Your task to perform on an android device: turn vacation reply on in the gmail app Image 0: 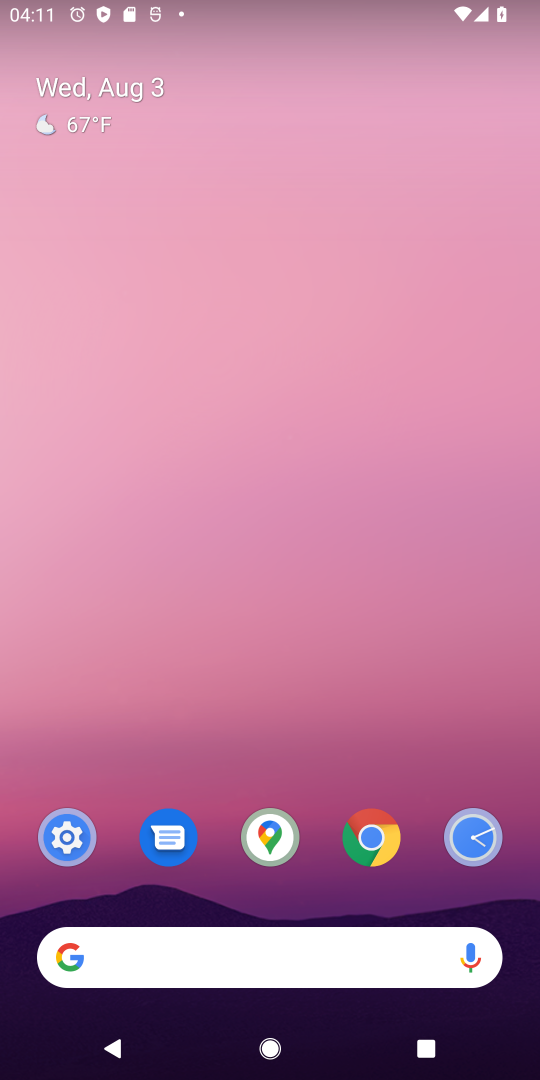
Step 0: drag from (422, 902) to (373, 111)
Your task to perform on an android device: turn vacation reply on in the gmail app Image 1: 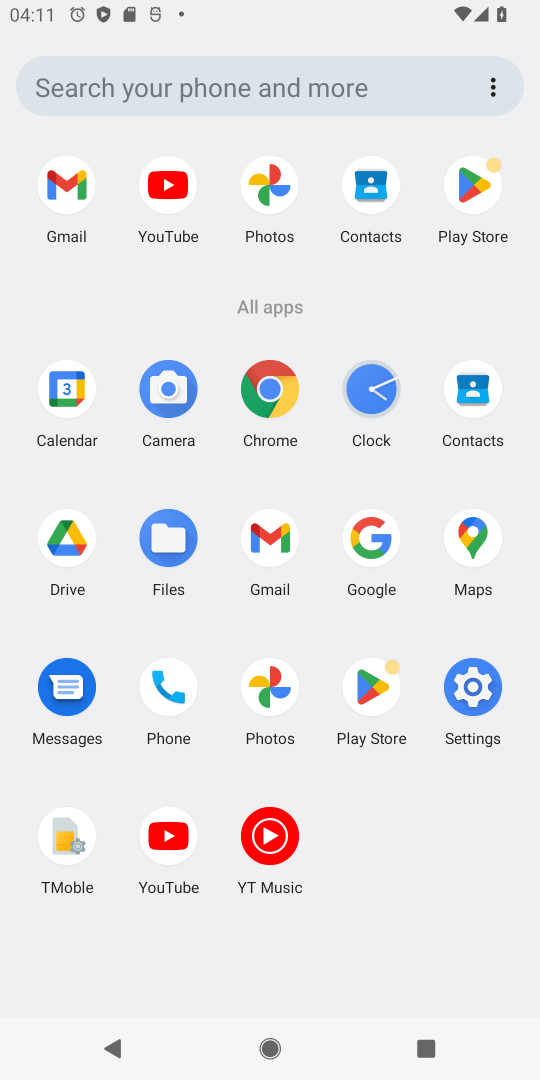
Step 1: click (269, 545)
Your task to perform on an android device: turn vacation reply on in the gmail app Image 2: 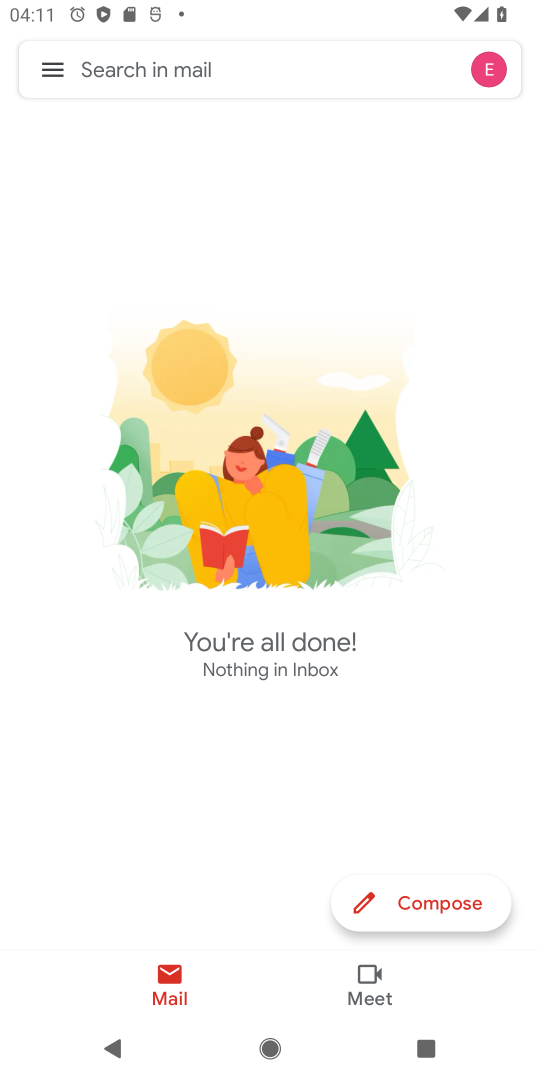
Step 2: click (50, 71)
Your task to perform on an android device: turn vacation reply on in the gmail app Image 3: 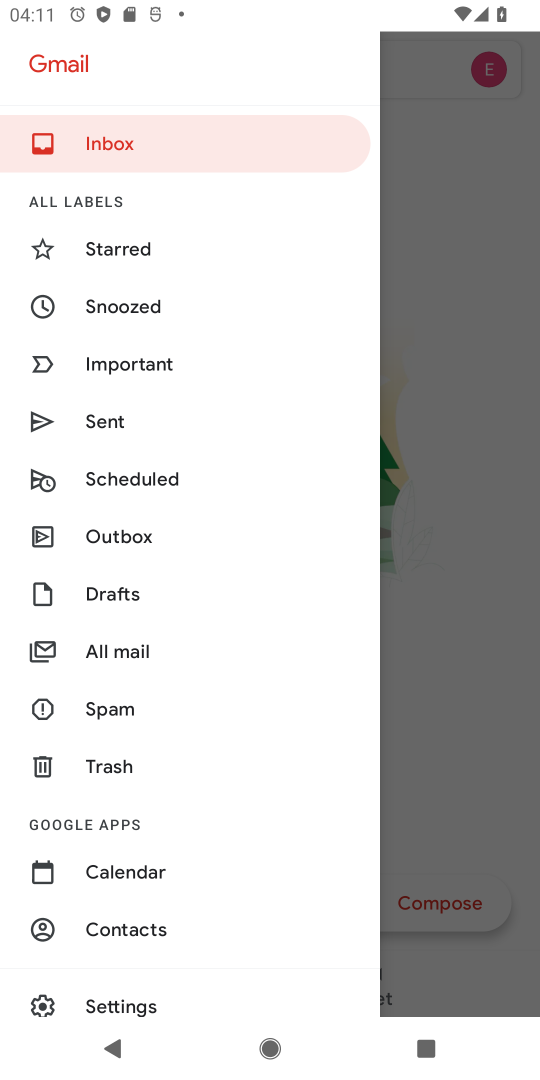
Step 3: drag from (257, 757) to (265, 375)
Your task to perform on an android device: turn vacation reply on in the gmail app Image 4: 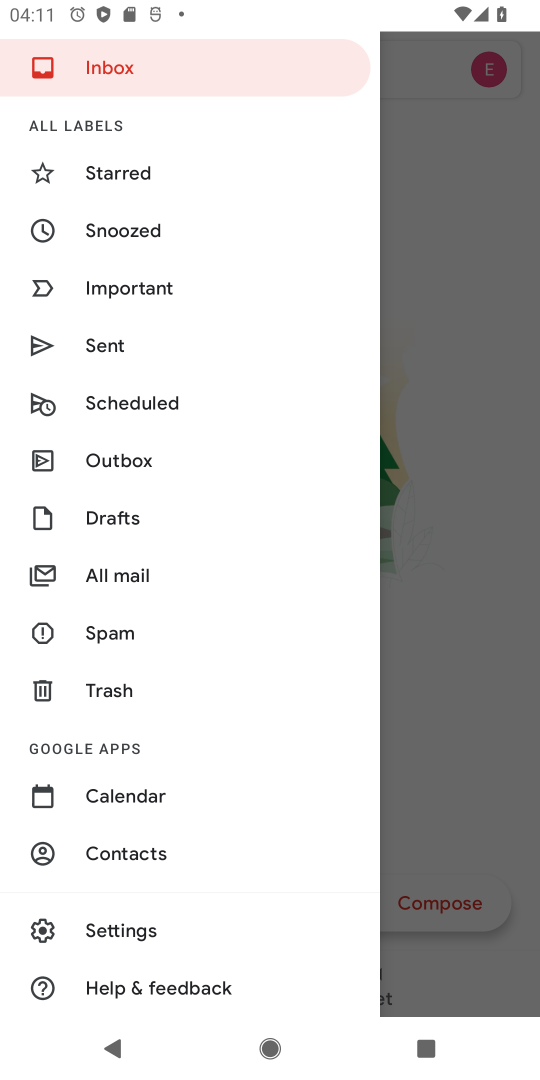
Step 4: click (121, 934)
Your task to perform on an android device: turn vacation reply on in the gmail app Image 5: 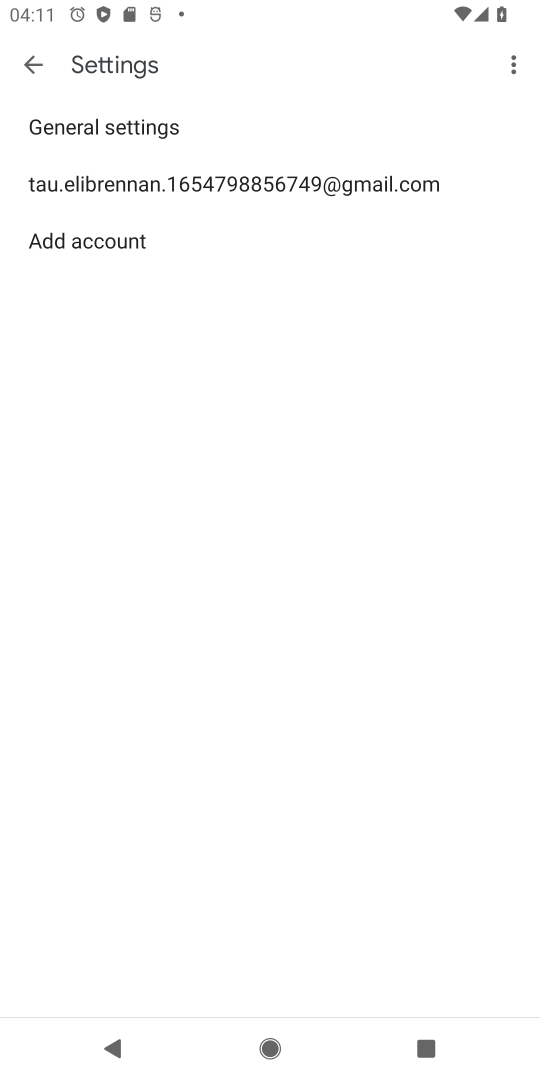
Step 5: click (234, 188)
Your task to perform on an android device: turn vacation reply on in the gmail app Image 6: 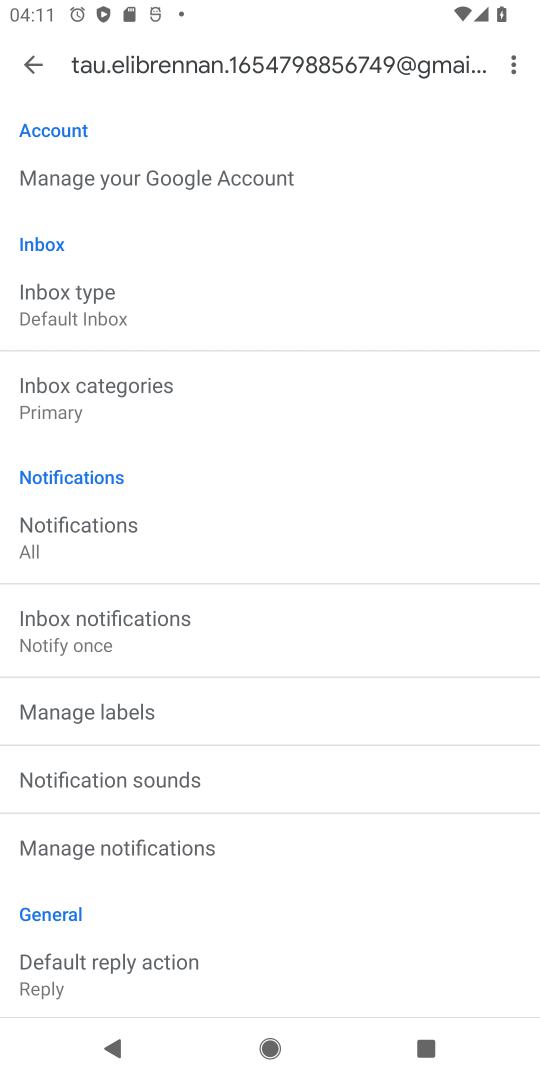
Step 6: drag from (262, 931) to (260, 312)
Your task to perform on an android device: turn vacation reply on in the gmail app Image 7: 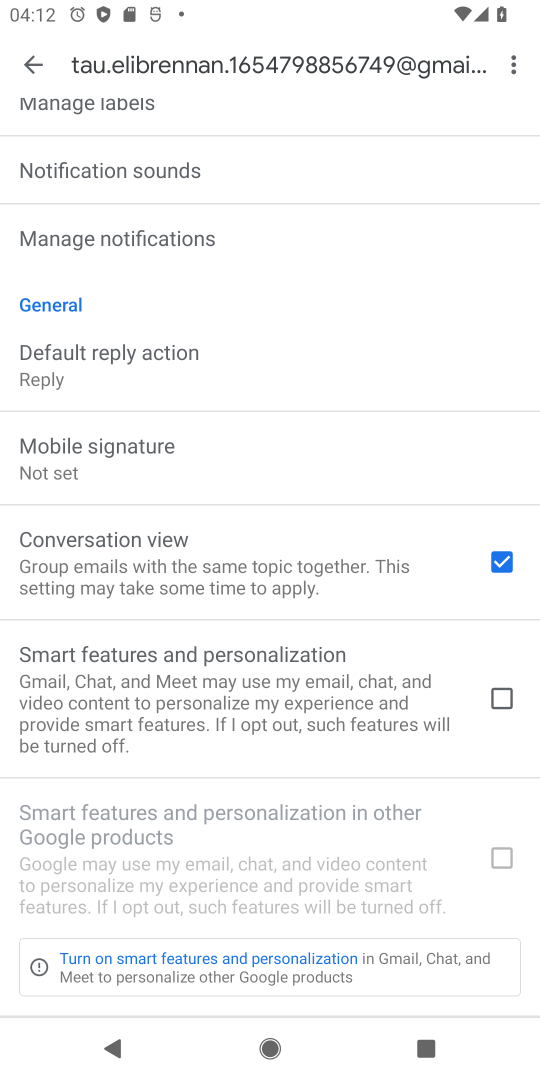
Step 7: drag from (231, 802) to (267, 201)
Your task to perform on an android device: turn vacation reply on in the gmail app Image 8: 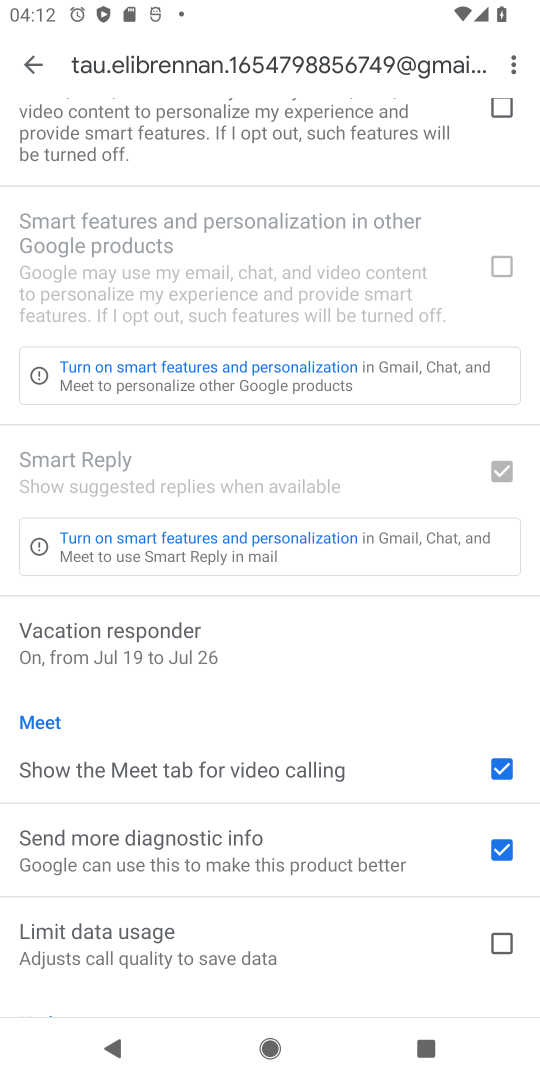
Step 8: drag from (212, 882) to (284, 366)
Your task to perform on an android device: turn vacation reply on in the gmail app Image 9: 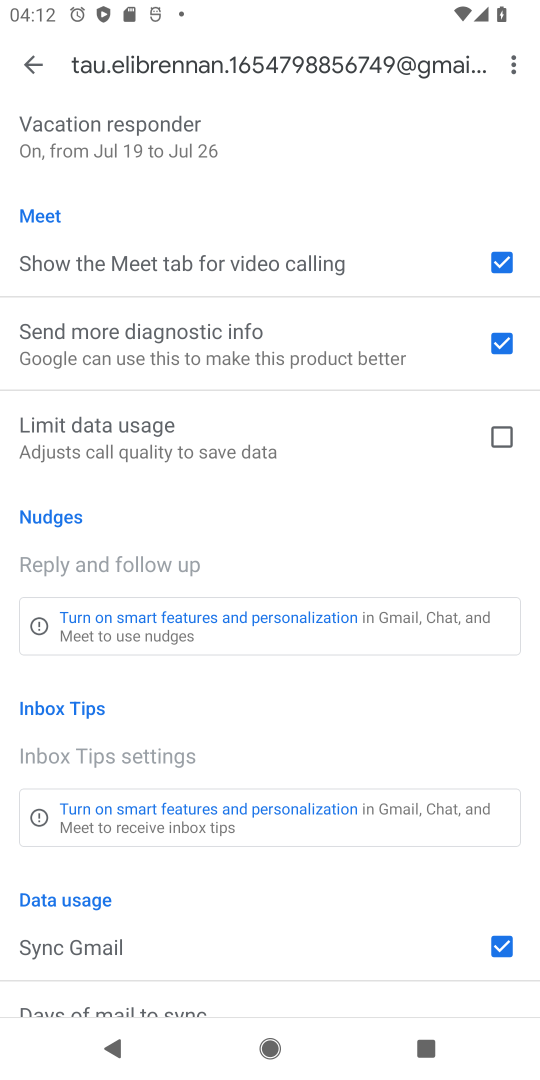
Step 9: drag from (247, 897) to (248, 241)
Your task to perform on an android device: turn vacation reply on in the gmail app Image 10: 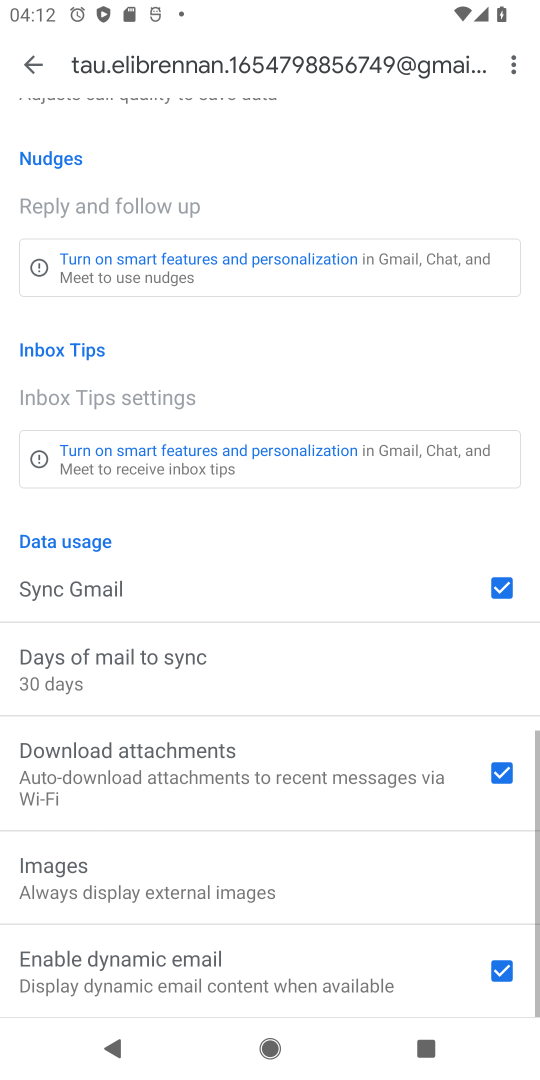
Step 10: drag from (253, 262) to (209, 795)
Your task to perform on an android device: turn vacation reply on in the gmail app Image 11: 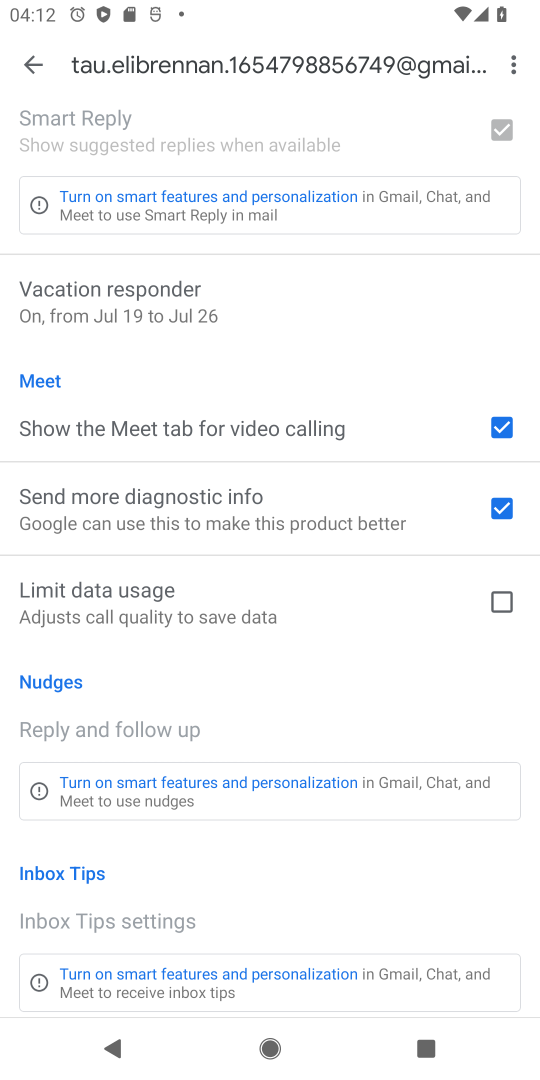
Step 11: click (114, 290)
Your task to perform on an android device: turn vacation reply on in the gmail app Image 12: 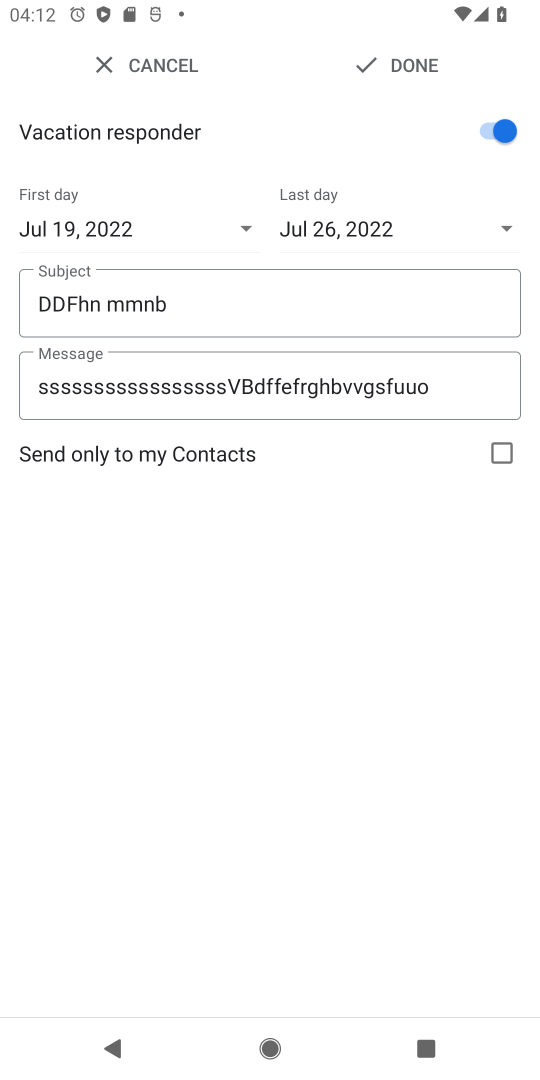
Step 12: click (404, 60)
Your task to perform on an android device: turn vacation reply on in the gmail app Image 13: 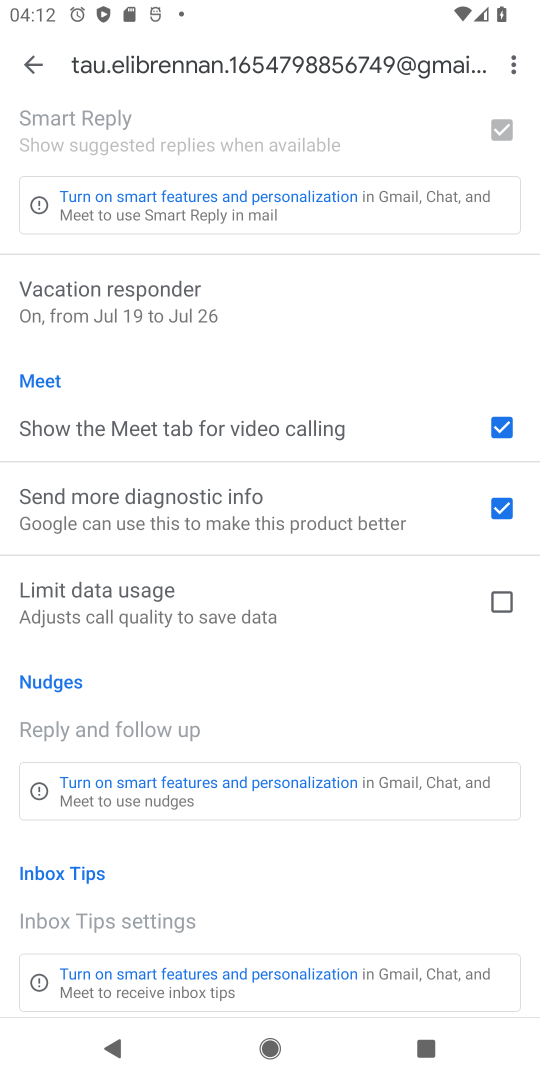
Step 13: task complete